Your task to perform on an android device: Show me recent news Image 0: 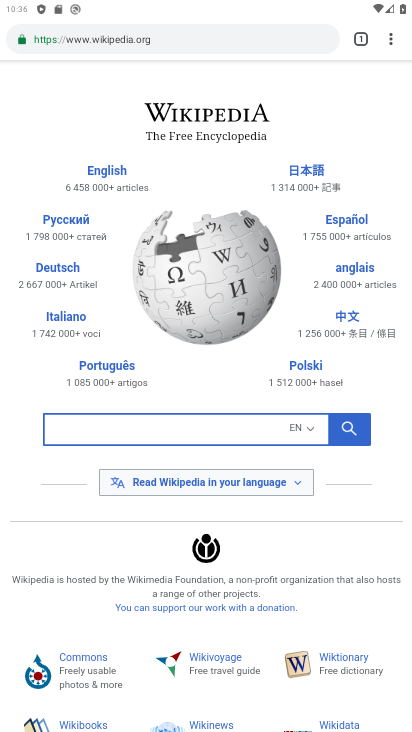
Step 0: press home button
Your task to perform on an android device: Show me recent news Image 1: 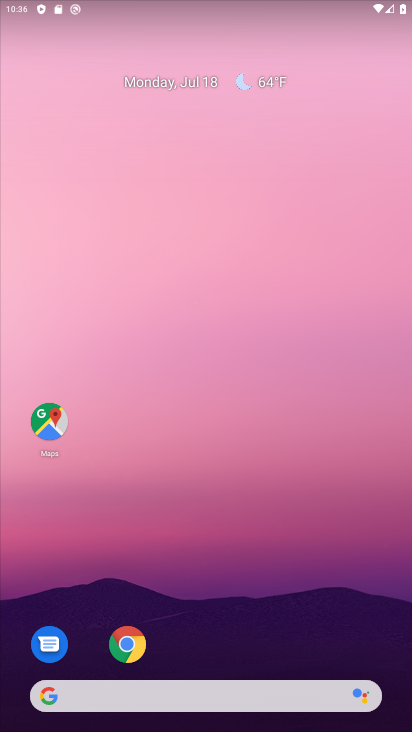
Step 1: click (134, 704)
Your task to perform on an android device: Show me recent news Image 2: 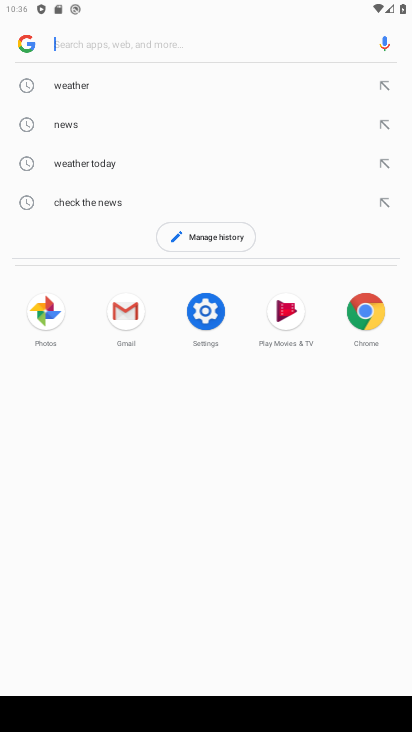
Step 2: type "recent news"
Your task to perform on an android device: Show me recent news Image 3: 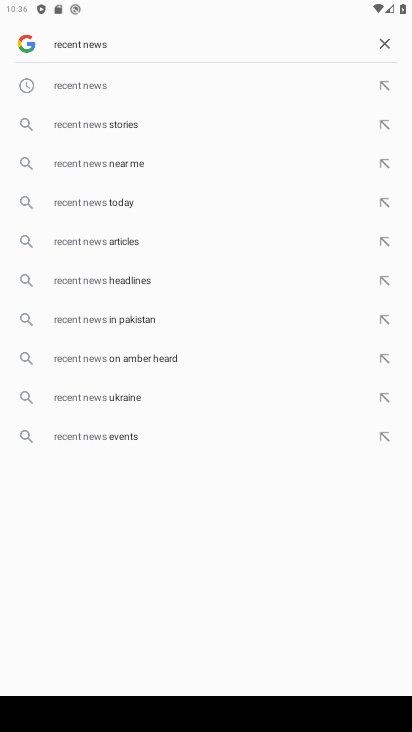
Step 3: click (102, 91)
Your task to perform on an android device: Show me recent news Image 4: 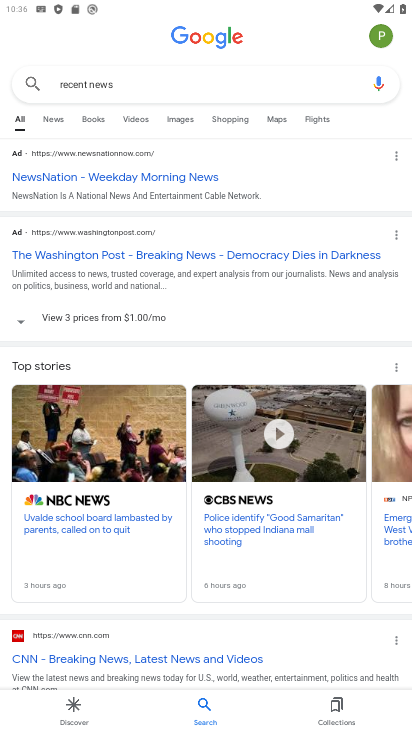
Step 4: click (61, 121)
Your task to perform on an android device: Show me recent news Image 5: 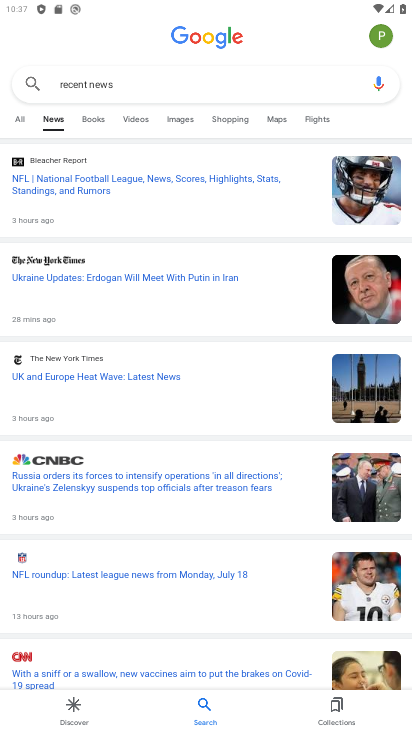
Step 5: task complete